Your task to perform on an android device: Open maps Image 0: 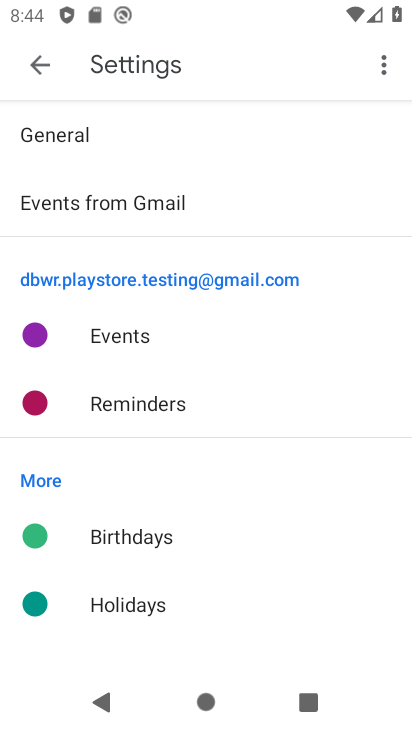
Step 0: press home button
Your task to perform on an android device: Open maps Image 1: 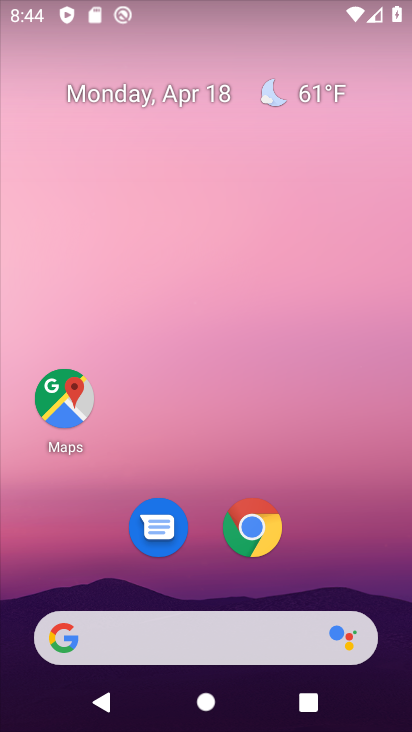
Step 1: click (63, 396)
Your task to perform on an android device: Open maps Image 2: 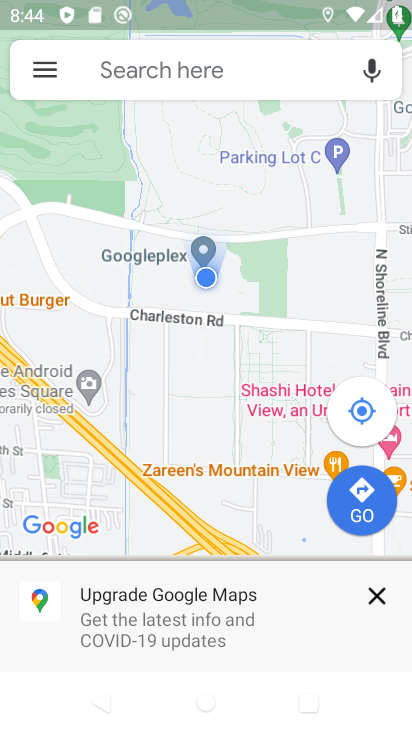
Step 2: task complete